Your task to perform on an android device: set an alarm Image 0: 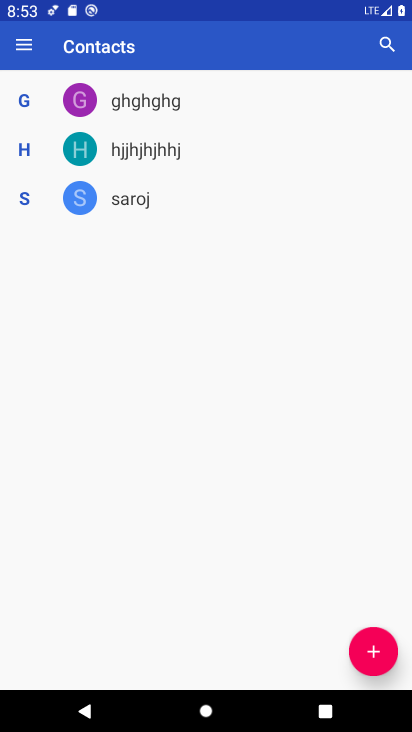
Step 0: press home button
Your task to perform on an android device: set an alarm Image 1: 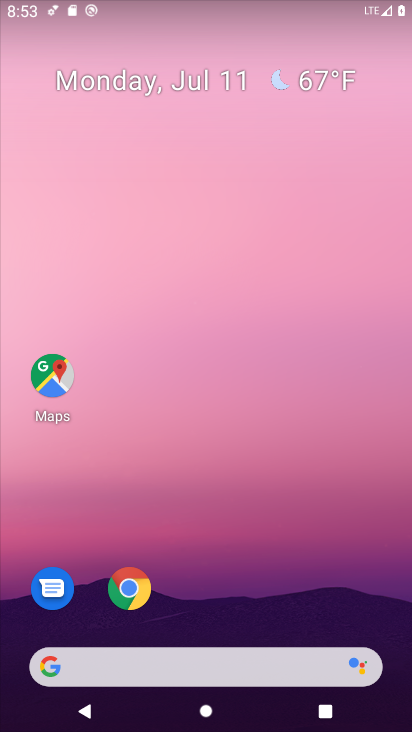
Step 1: drag from (259, 539) to (231, 75)
Your task to perform on an android device: set an alarm Image 2: 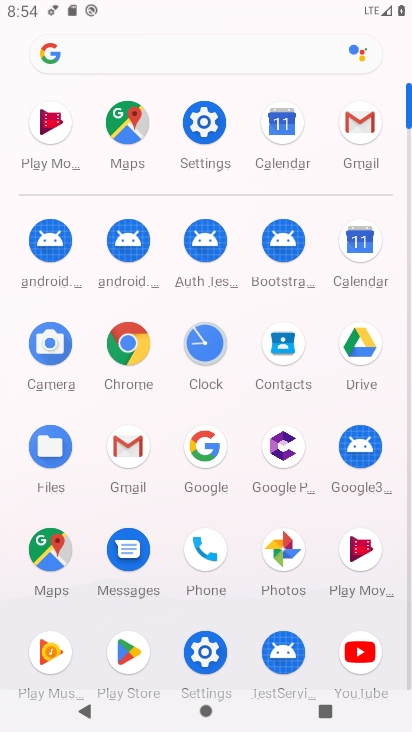
Step 2: click (207, 347)
Your task to perform on an android device: set an alarm Image 3: 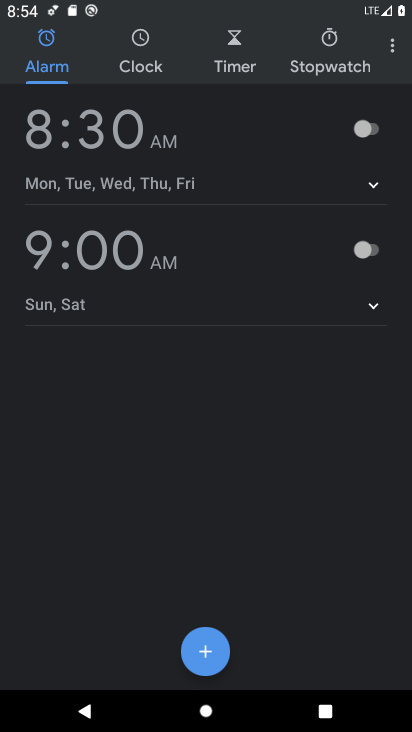
Step 3: click (204, 641)
Your task to perform on an android device: set an alarm Image 4: 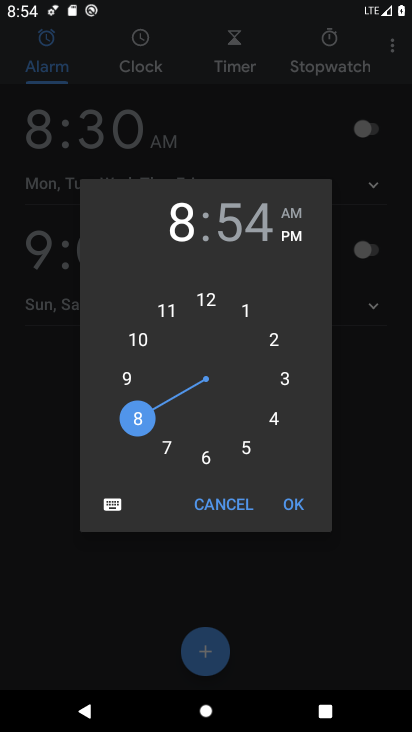
Step 4: click (293, 508)
Your task to perform on an android device: set an alarm Image 5: 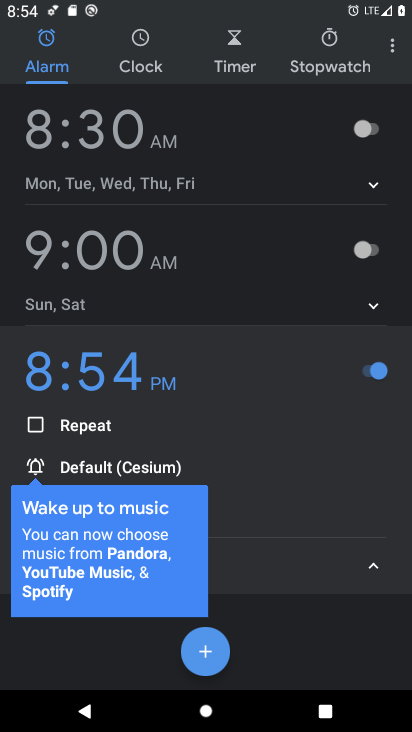
Step 5: click (367, 569)
Your task to perform on an android device: set an alarm Image 6: 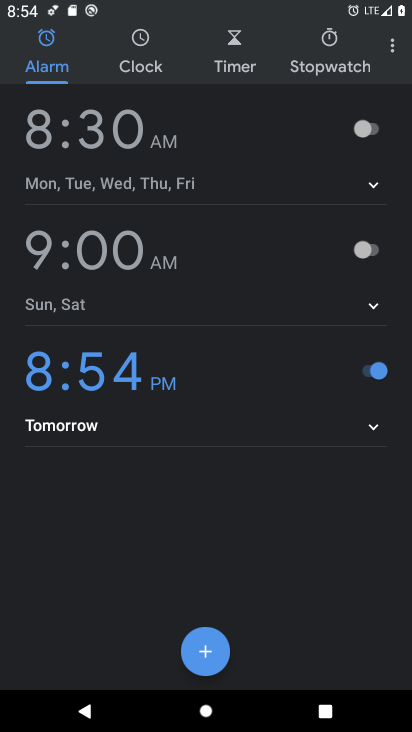
Step 6: task complete